Your task to perform on an android device: see tabs open on other devices in the chrome app Image 0: 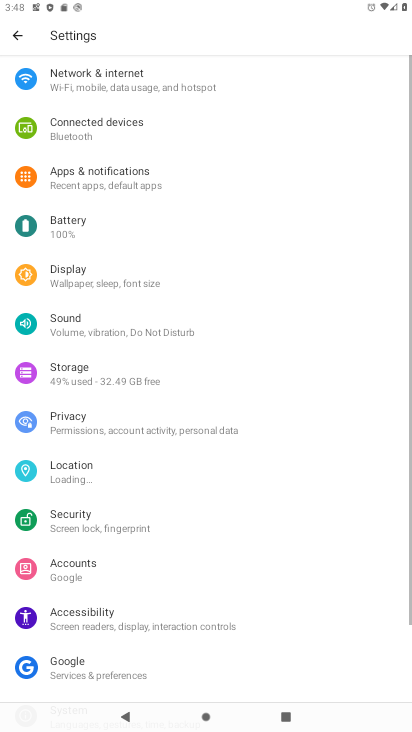
Step 0: press home button
Your task to perform on an android device: see tabs open on other devices in the chrome app Image 1: 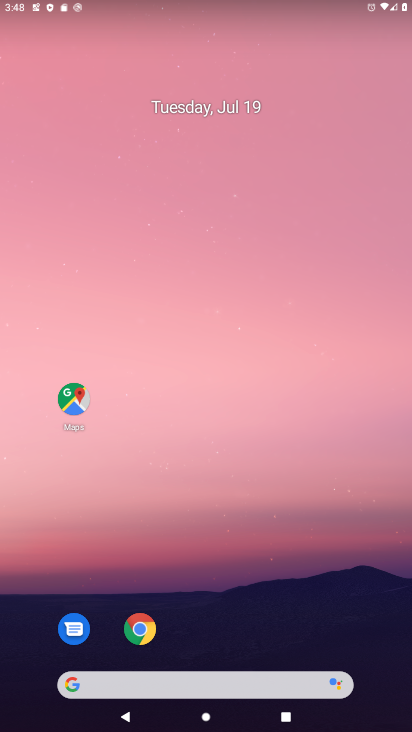
Step 1: click (147, 631)
Your task to perform on an android device: see tabs open on other devices in the chrome app Image 2: 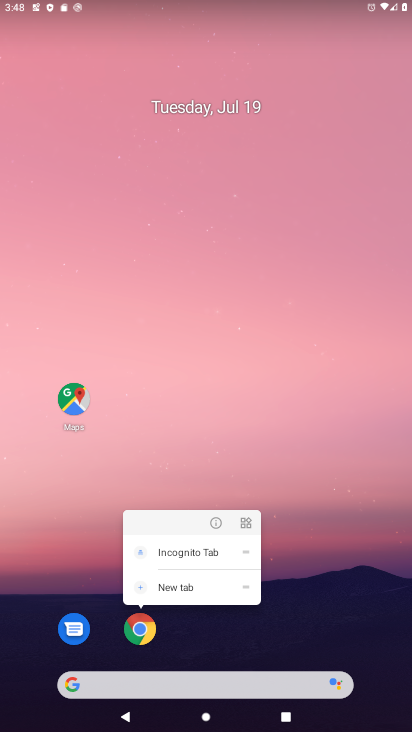
Step 2: click (149, 629)
Your task to perform on an android device: see tabs open on other devices in the chrome app Image 3: 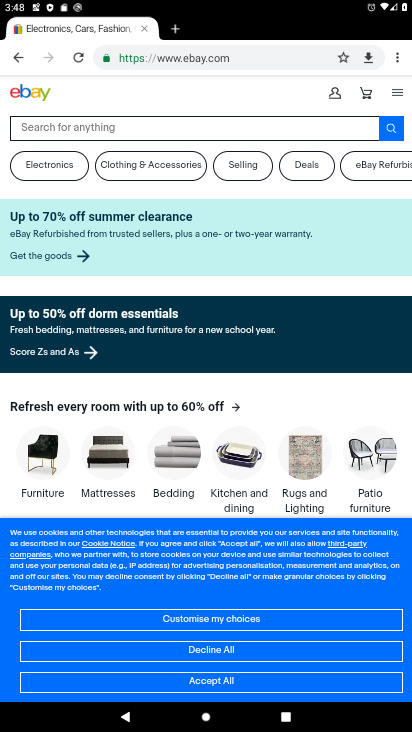
Step 3: task complete